Your task to perform on an android device: Clear the shopping cart on walmart. Search for razer deathadder on walmart, select the first entry, and add it to the cart. Image 0: 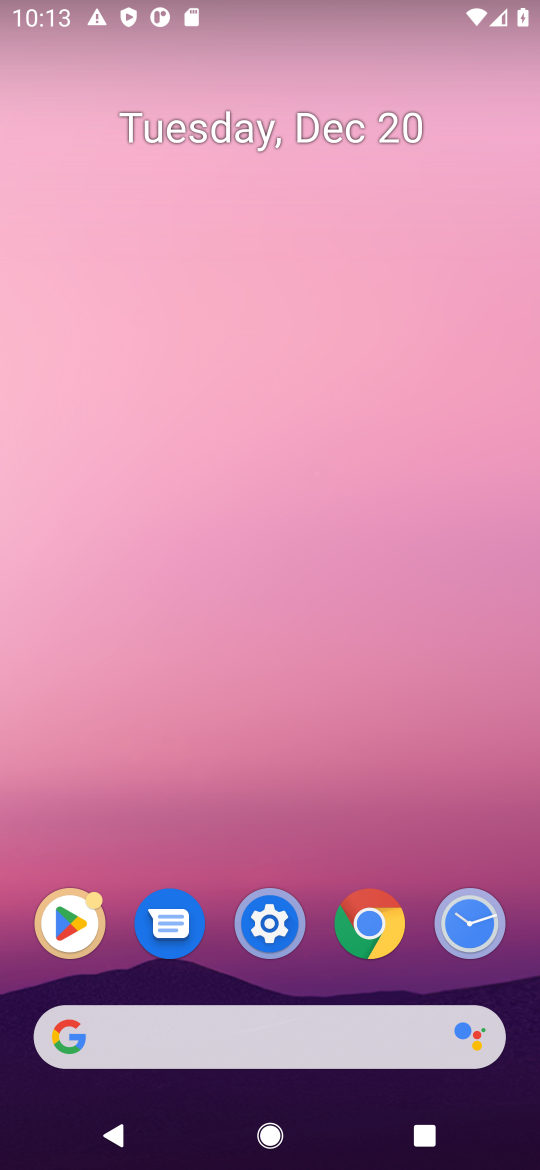
Step 0: task complete